Your task to perform on an android device: What's on my calendar today? Image 0: 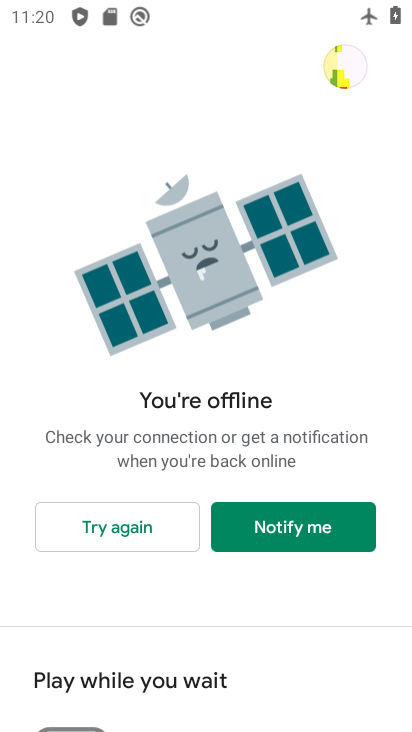
Step 0: press home button
Your task to perform on an android device: What's on my calendar today? Image 1: 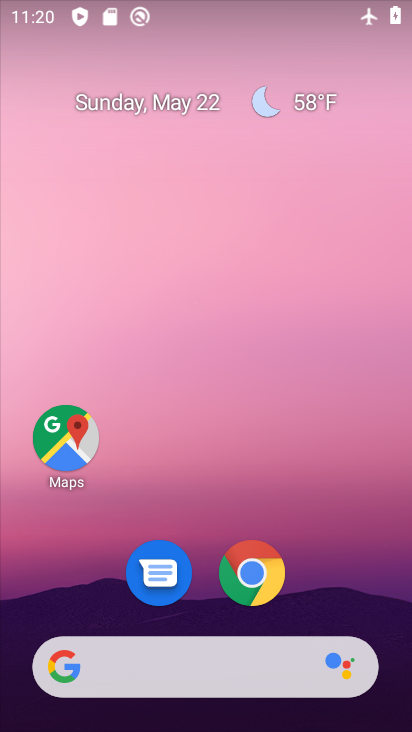
Step 1: drag from (381, 605) to (350, 272)
Your task to perform on an android device: What's on my calendar today? Image 2: 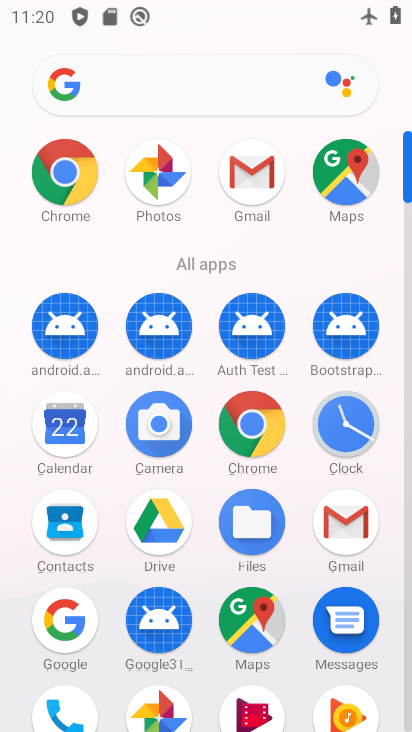
Step 2: click (66, 456)
Your task to perform on an android device: What's on my calendar today? Image 3: 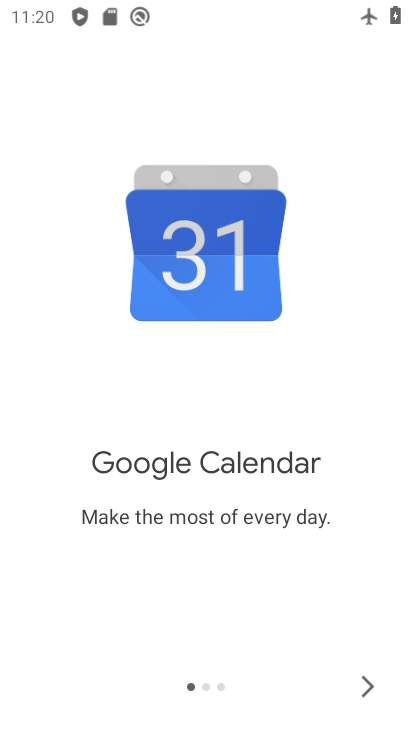
Step 3: click (365, 686)
Your task to perform on an android device: What's on my calendar today? Image 4: 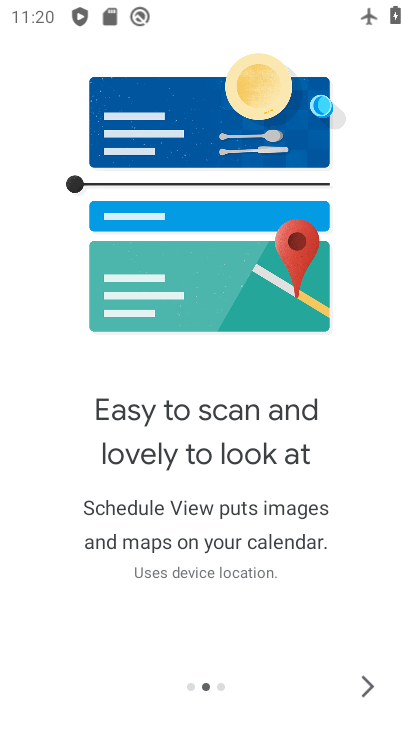
Step 4: click (369, 686)
Your task to perform on an android device: What's on my calendar today? Image 5: 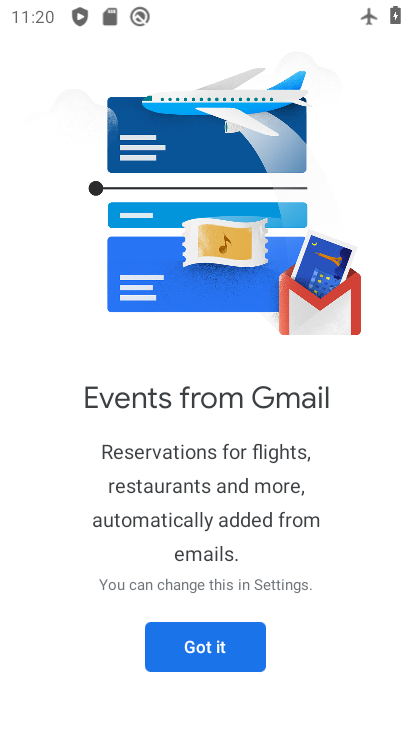
Step 5: click (204, 647)
Your task to perform on an android device: What's on my calendar today? Image 6: 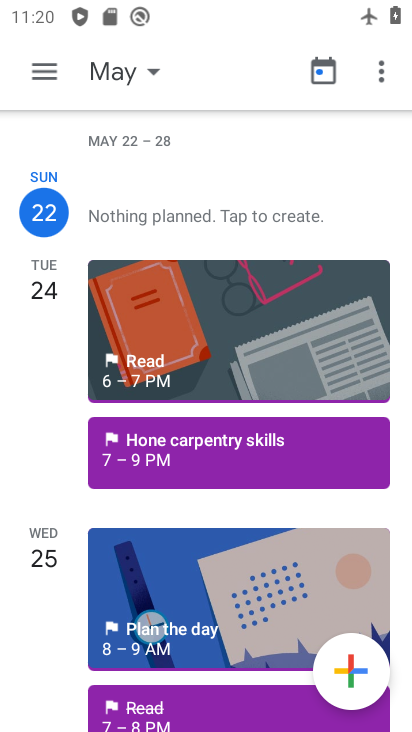
Step 6: click (139, 77)
Your task to perform on an android device: What's on my calendar today? Image 7: 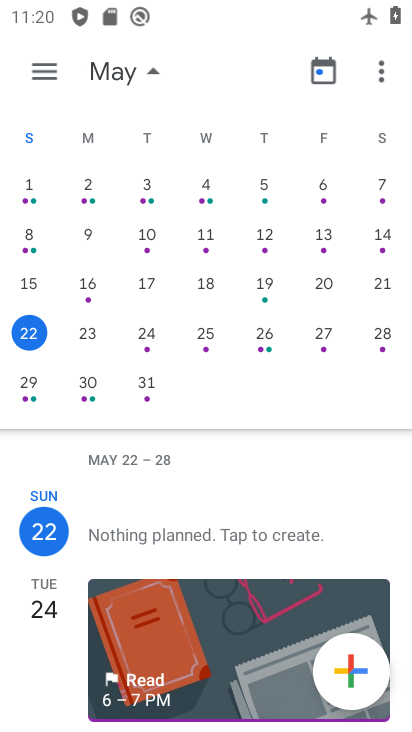
Step 7: click (87, 334)
Your task to perform on an android device: What's on my calendar today? Image 8: 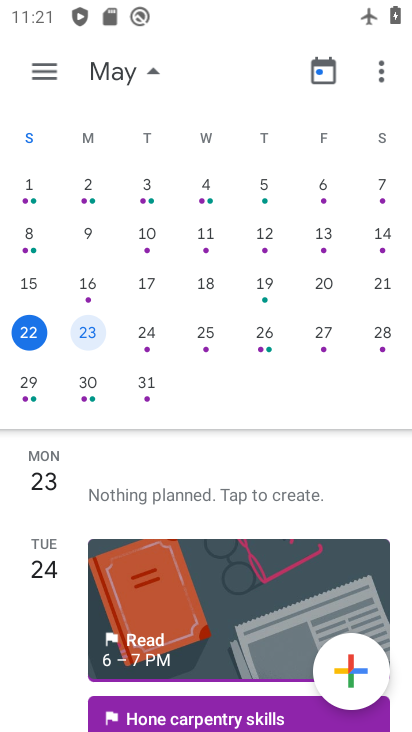
Step 8: task complete